Your task to perform on an android device: What is the recent news? Image 0: 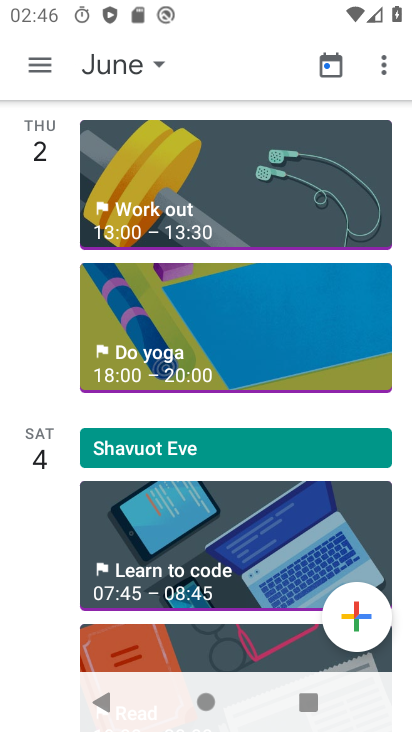
Step 0: press home button
Your task to perform on an android device: What is the recent news? Image 1: 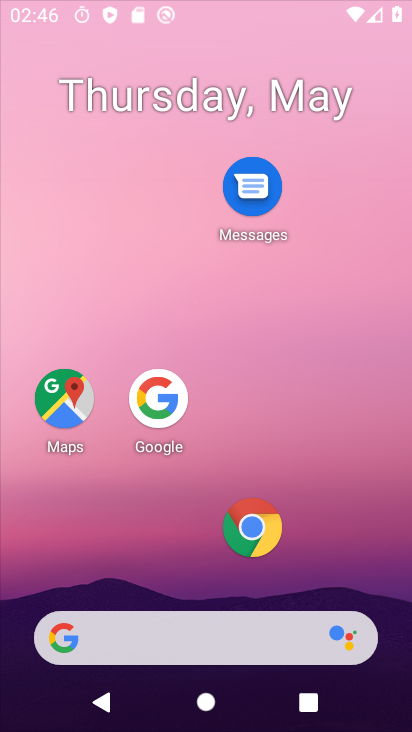
Step 1: drag from (225, 506) to (212, 224)
Your task to perform on an android device: What is the recent news? Image 2: 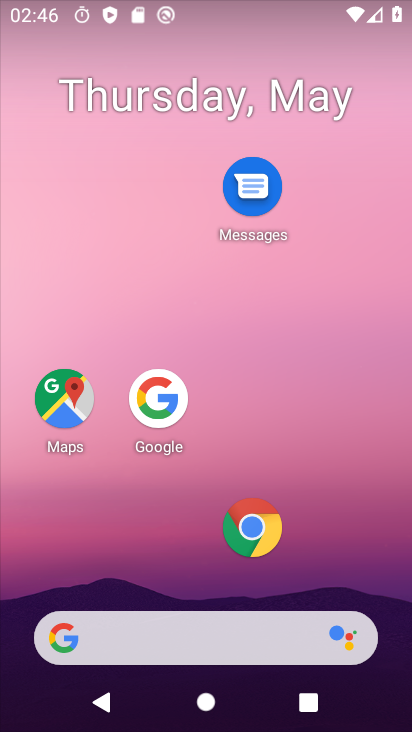
Step 2: drag from (197, 597) to (217, 51)
Your task to perform on an android device: What is the recent news? Image 3: 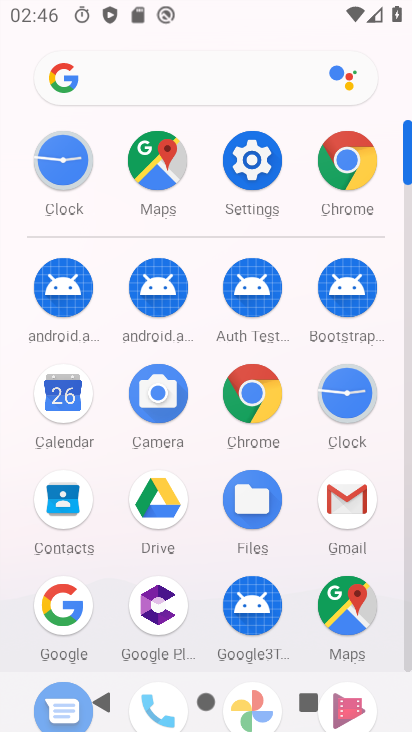
Step 3: click (213, 81)
Your task to perform on an android device: What is the recent news? Image 4: 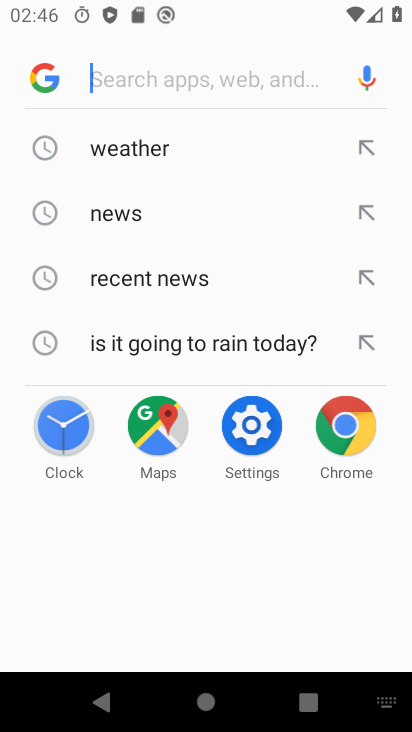
Step 4: click (145, 271)
Your task to perform on an android device: What is the recent news? Image 5: 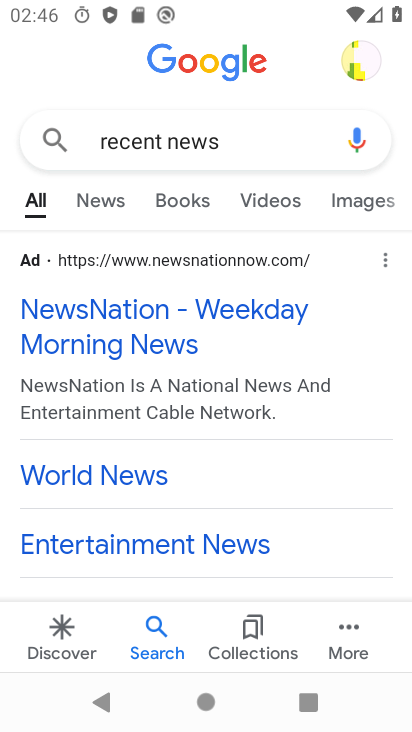
Step 5: click (122, 337)
Your task to perform on an android device: What is the recent news? Image 6: 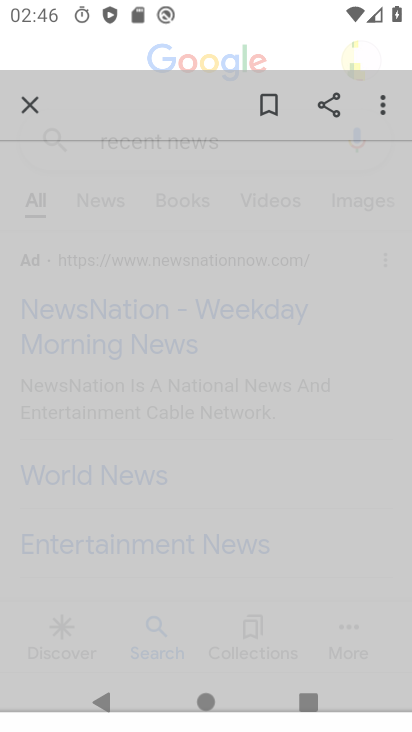
Step 6: task complete